Your task to perform on an android device: Open Google Maps Image 0: 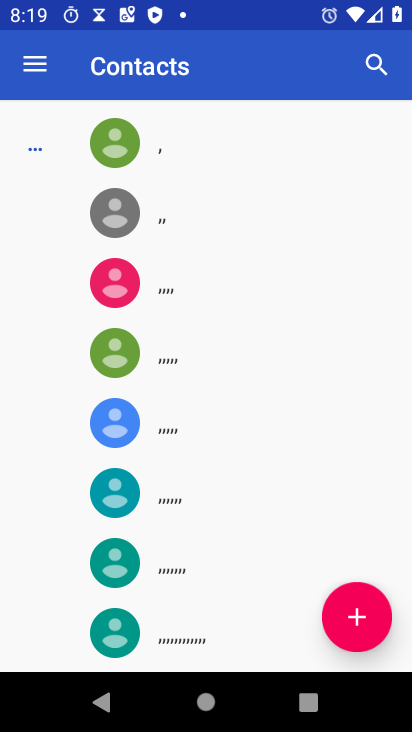
Step 0: press home button
Your task to perform on an android device: Open Google Maps Image 1: 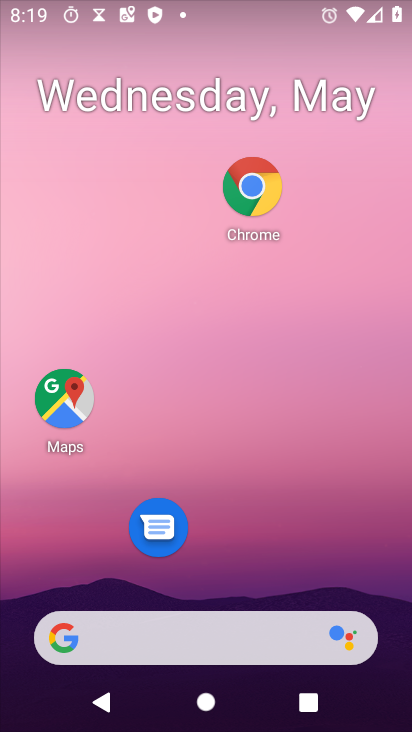
Step 1: click (50, 407)
Your task to perform on an android device: Open Google Maps Image 2: 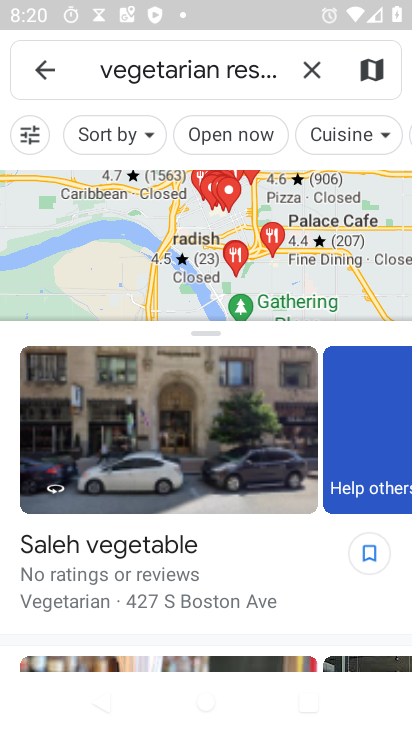
Step 2: click (49, 69)
Your task to perform on an android device: Open Google Maps Image 3: 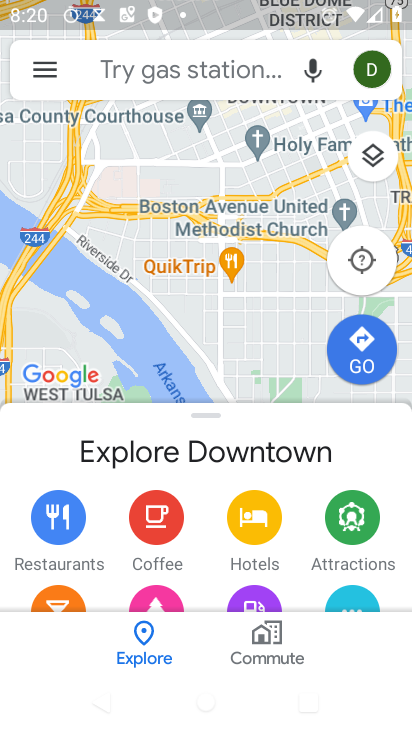
Step 3: task complete